Your task to perform on an android device: turn off location history Image 0: 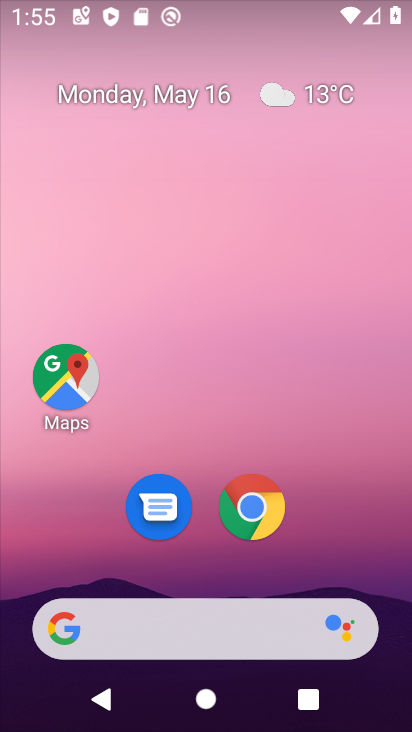
Step 0: drag from (380, 573) to (355, 81)
Your task to perform on an android device: turn off location history Image 1: 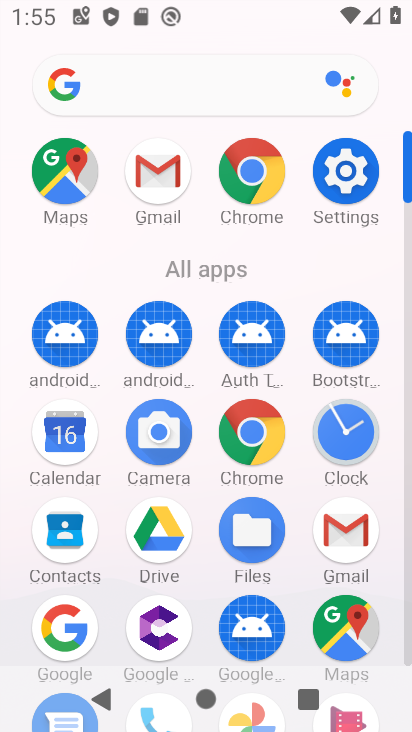
Step 1: click (363, 188)
Your task to perform on an android device: turn off location history Image 2: 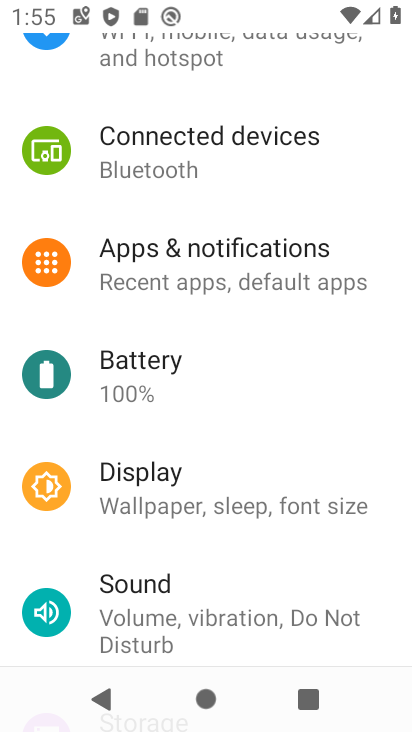
Step 2: drag from (389, 249) to (389, 374)
Your task to perform on an android device: turn off location history Image 3: 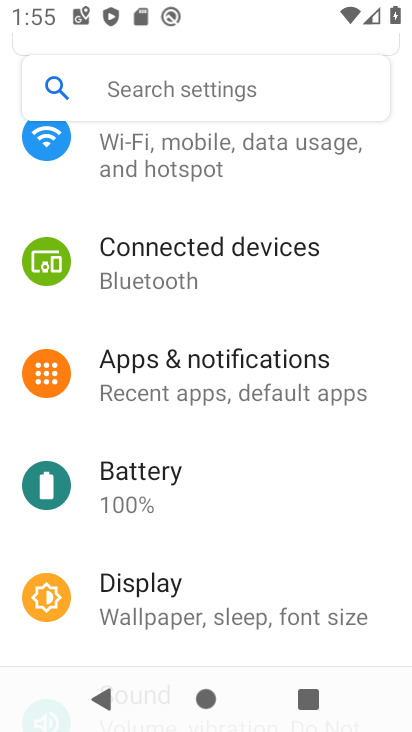
Step 3: drag from (383, 203) to (378, 354)
Your task to perform on an android device: turn off location history Image 4: 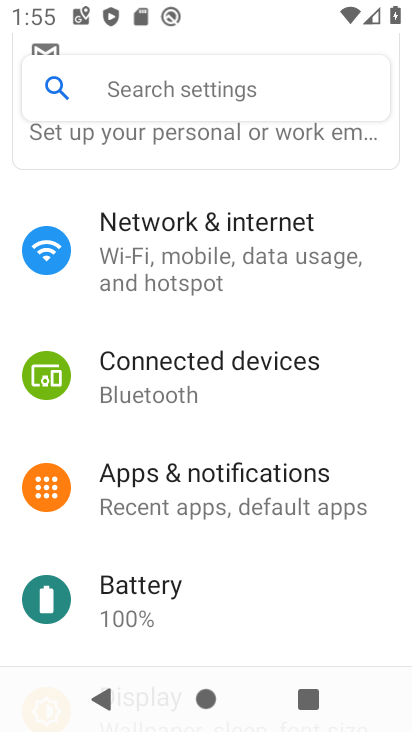
Step 4: drag from (371, 439) to (366, 307)
Your task to perform on an android device: turn off location history Image 5: 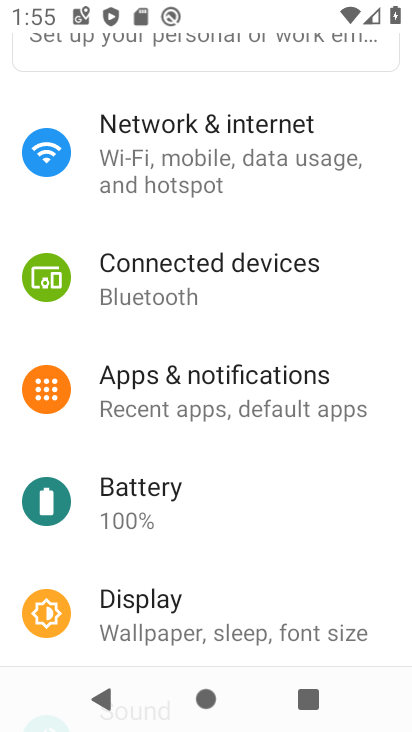
Step 5: drag from (337, 523) to (350, 350)
Your task to perform on an android device: turn off location history Image 6: 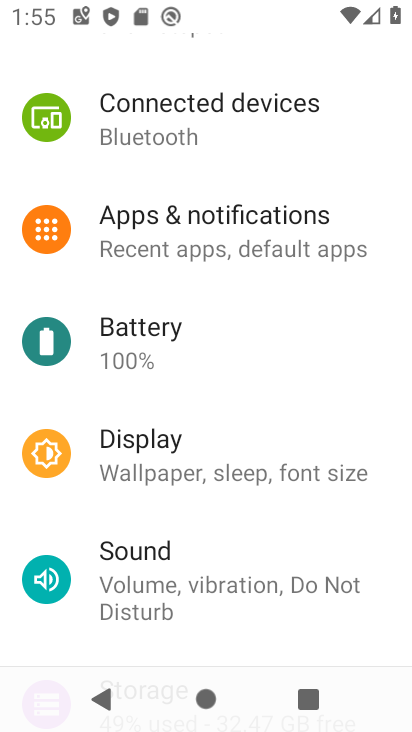
Step 6: drag from (369, 612) to (378, 450)
Your task to perform on an android device: turn off location history Image 7: 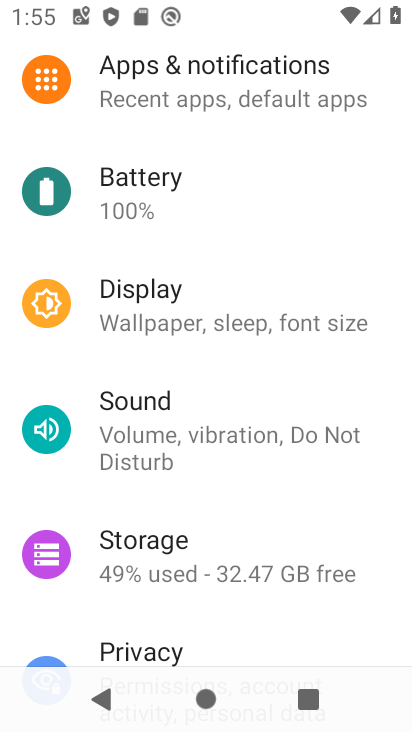
Step 7: drag from (360, 640) to (372, 474)
Your task to perform on an android device: turn off location history Image 8: 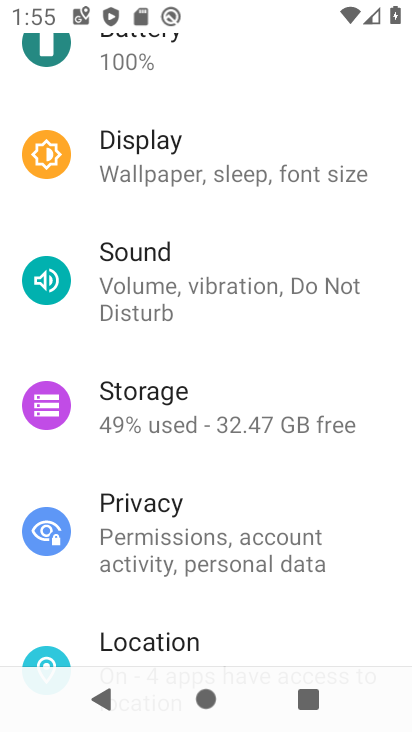
Step 8: drag from (345, 645) to (360, 492)
Your task to perform on an android device: turn off location history Image 9: 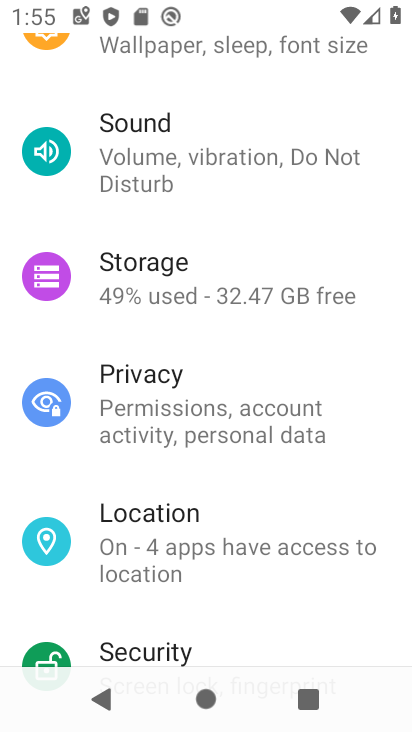
Step 9: drag from (340, 624) to (341, 475)
Your task to perform on an android device: turn off location history Image 10: 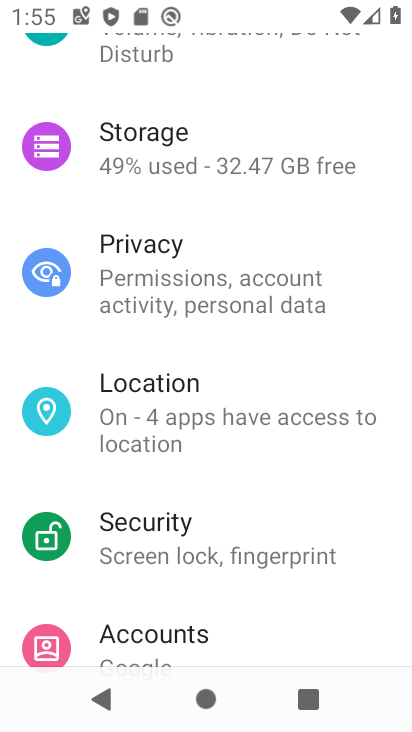
Step 10: drag from (342, 622) to (343, 494)
Your task to perform on an android device: turn off location history Image 11: 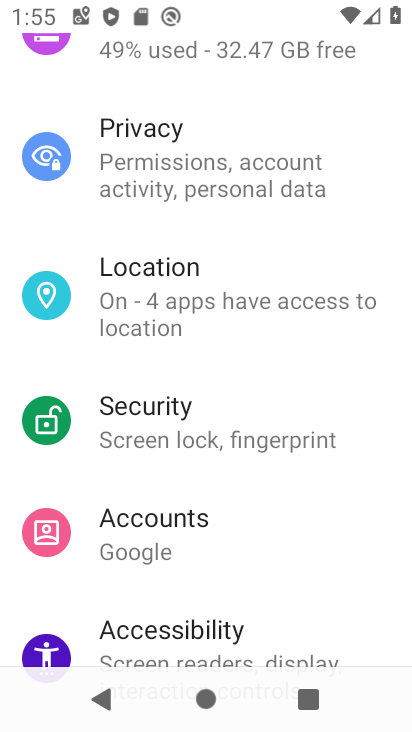
Step 11: click (247, 290)
Your task to perform on an android device: turn off location history Image 12: 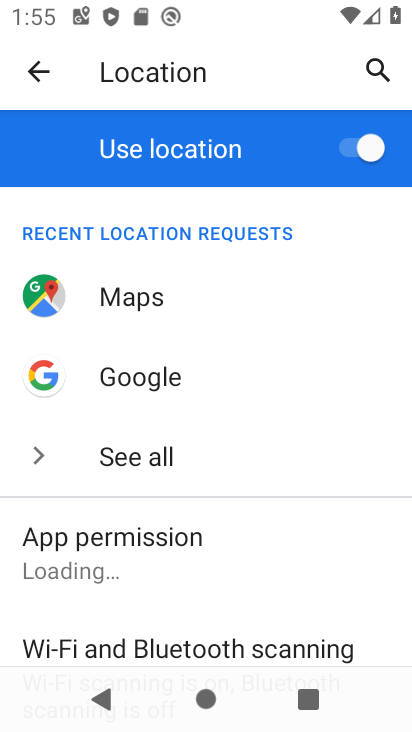
Step 12: drag from (303, 573) to (303, 425)
Your task to perform on an android device: turn off location history Image 13: 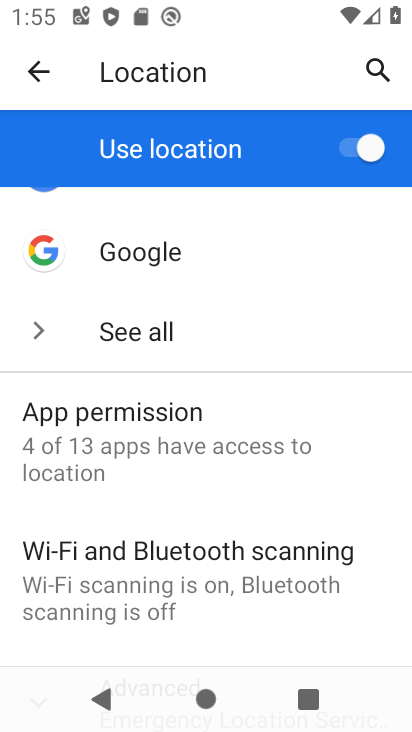
Step 13: drag from (261, 614) to (260, 413)
Your task to perform on an android device: turn off location history Image 14: 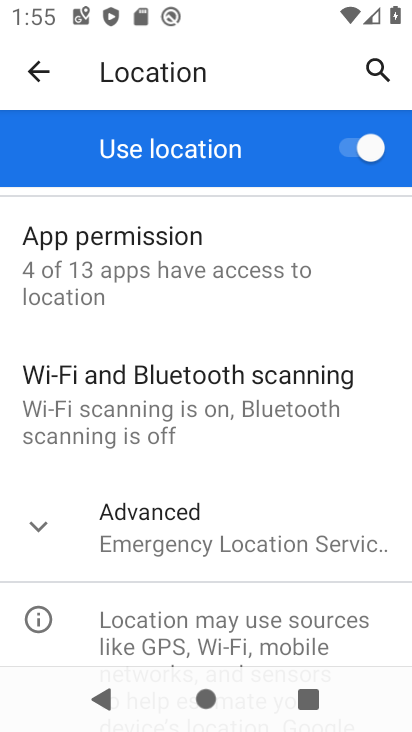
Step 14: click (223, 544)
Your task to perform on an android device: turn off location history Image 15: 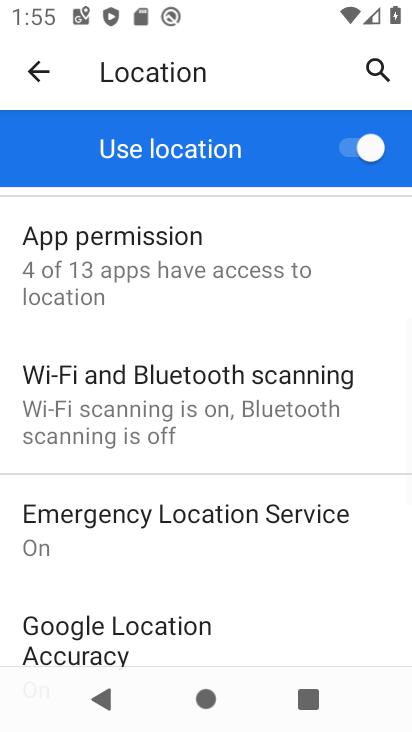
Step 15: drag from (310, 609) to (322, 436)
Your task to perform on an android device: turn off location history Image 16: 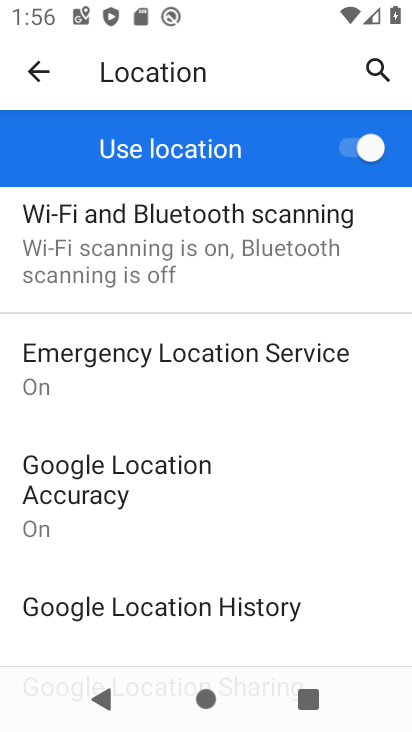
Step 16: drag from (287, 642) to (293, 501)
Your task to perform on an android device: turn off location history Image 17: 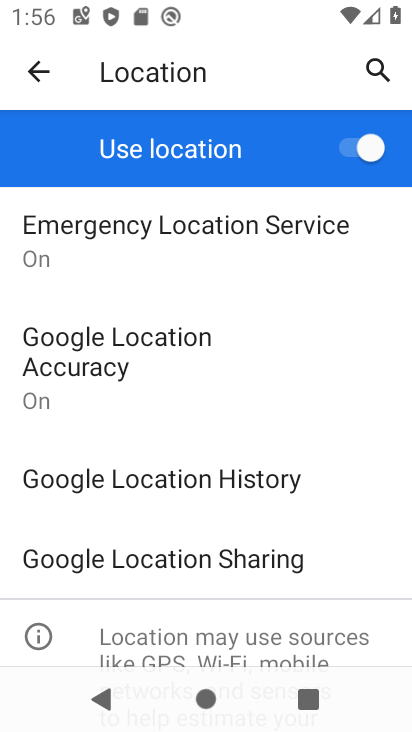
Step 17: click (293, 501)
Your task to perform on an android device: turn off location history Image 18: 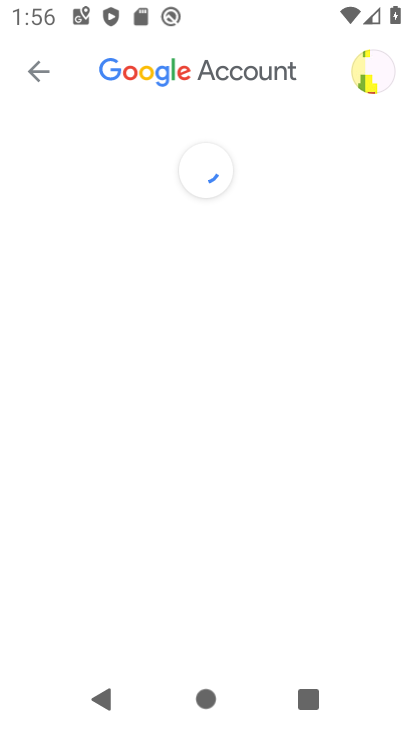
Step 18: task complete